Your task to perform on an android device: open app "Upside-Cash back on gas & food" (install if not already installed) and go to login screen Image 0: 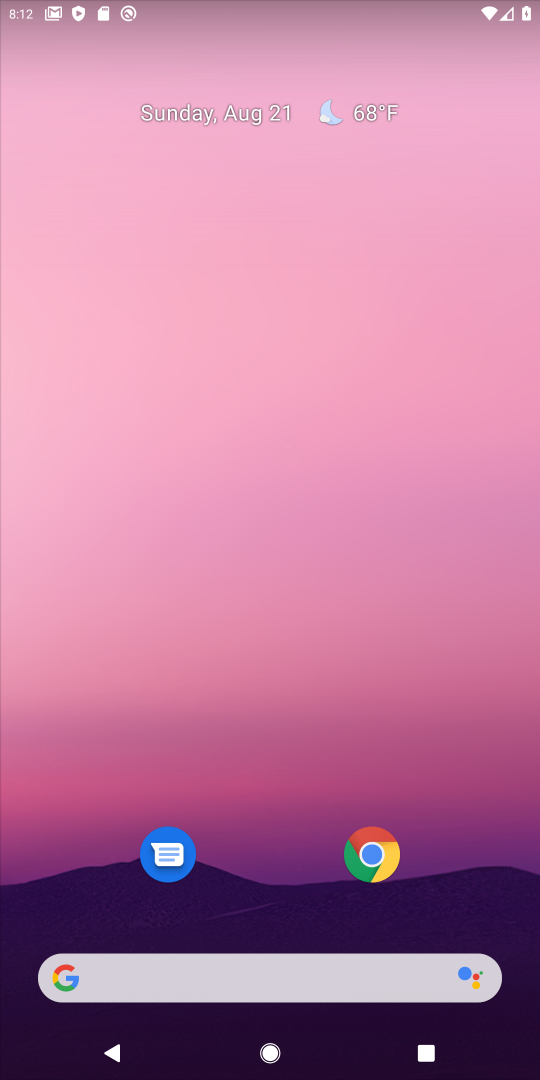
Step 0: drag from (277, 917) to (298, 216)
Your task to perform on an android device: open app "Upside-Cash back on gas & food" (install if not already installed) and go to login screen Image 1: 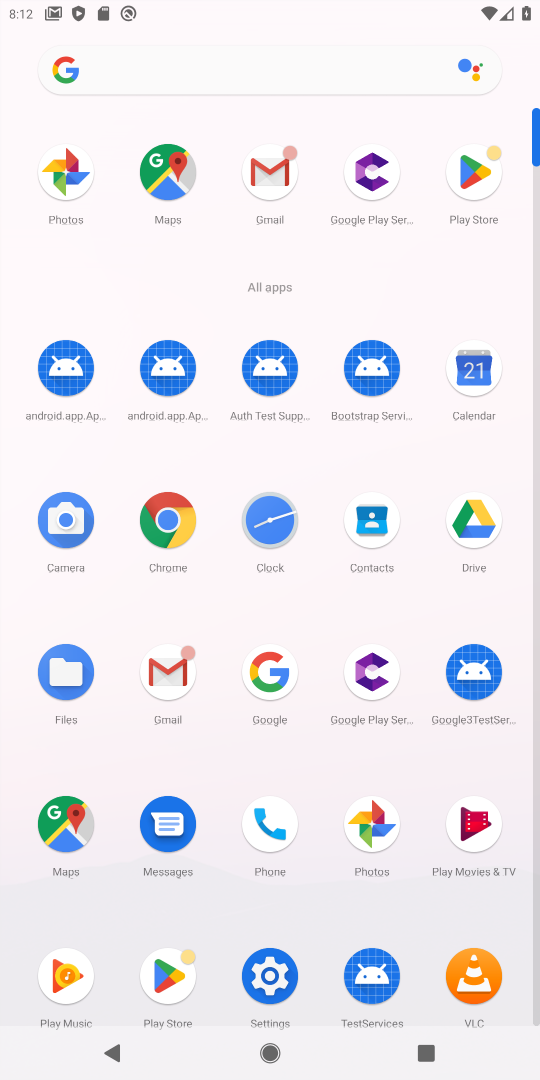
Step 1: click (492, 180)
Your task to perform on an android device: open app "Upside-Cash back on gas & food" (install if not already installed) and go to login screen Image 2: 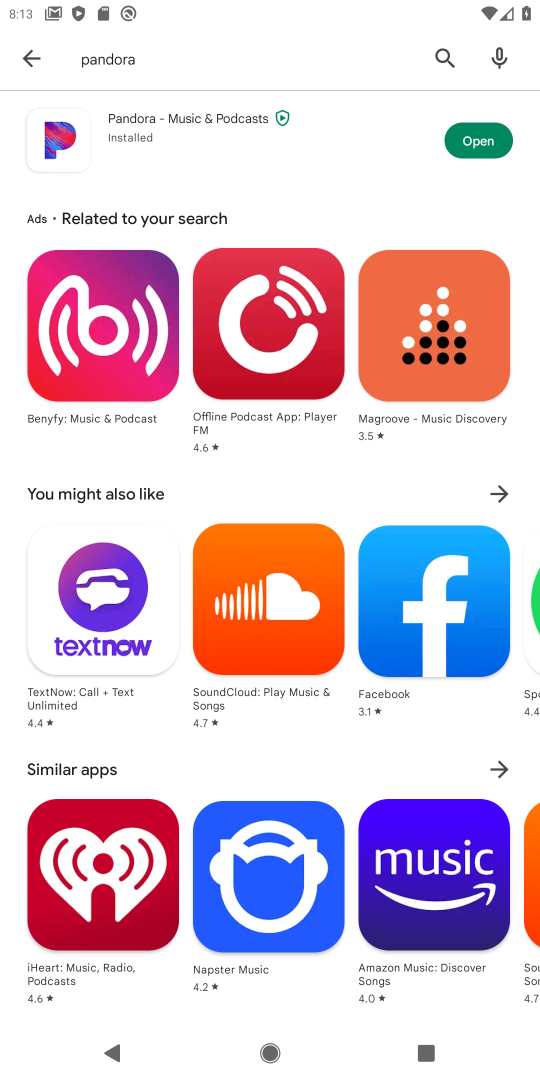
Step 2: click (460, 54)
Your task to perform on an android device: open app "Upside-Cash back on gas & food" (install if not already installed) and go to login screen Image 3: 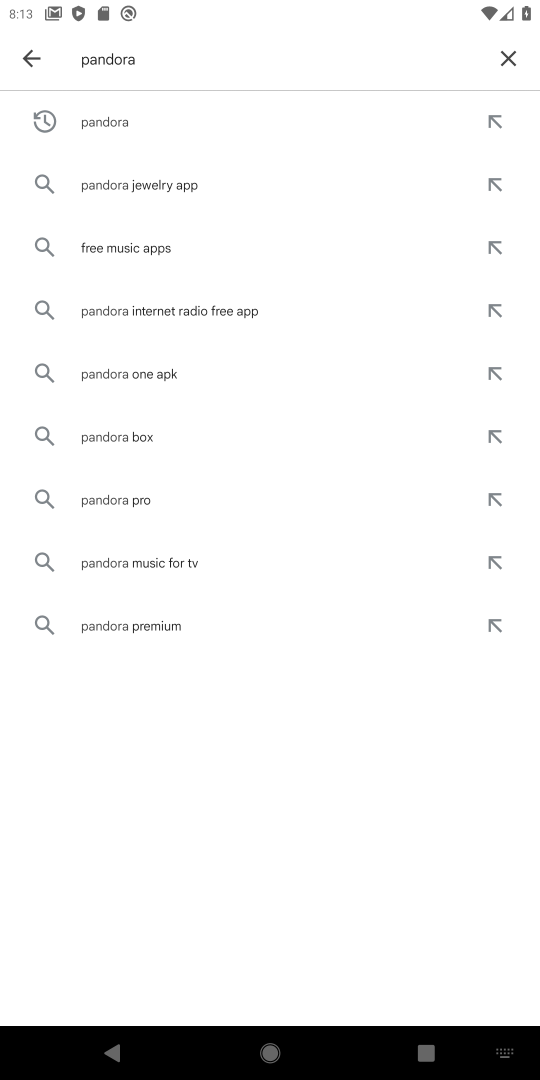
Step 3: click (517, 67)
Your task to perform on an android device: open app "Upside-Cash back on gas & food" (install if not already installed) and go to login screen Image 4: 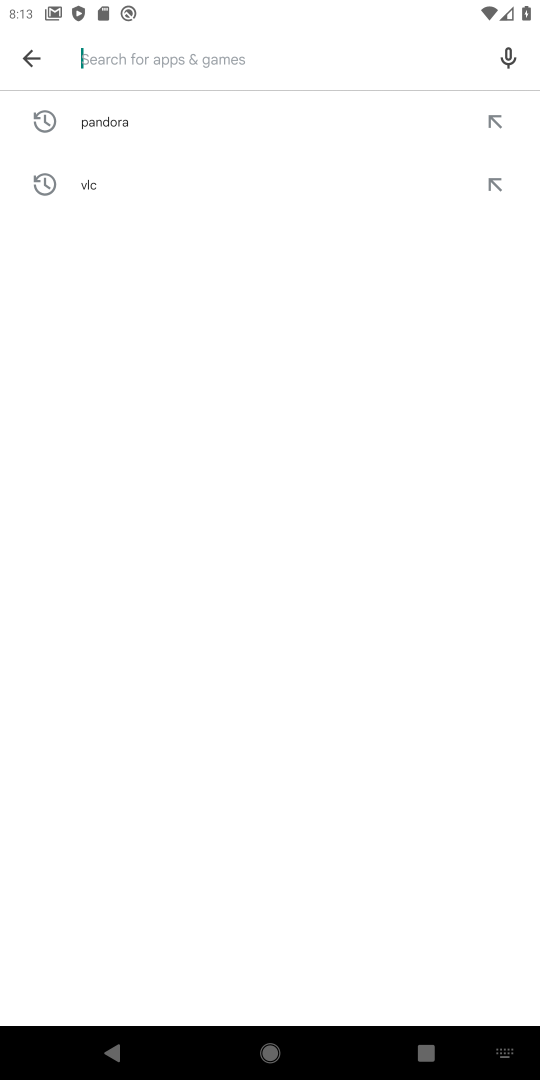
Step 4: type "upside"
Your task to perform on an android device: open app "Upside-Cash back on gas & food" (install if not already installed) and go to login screen Image 5: 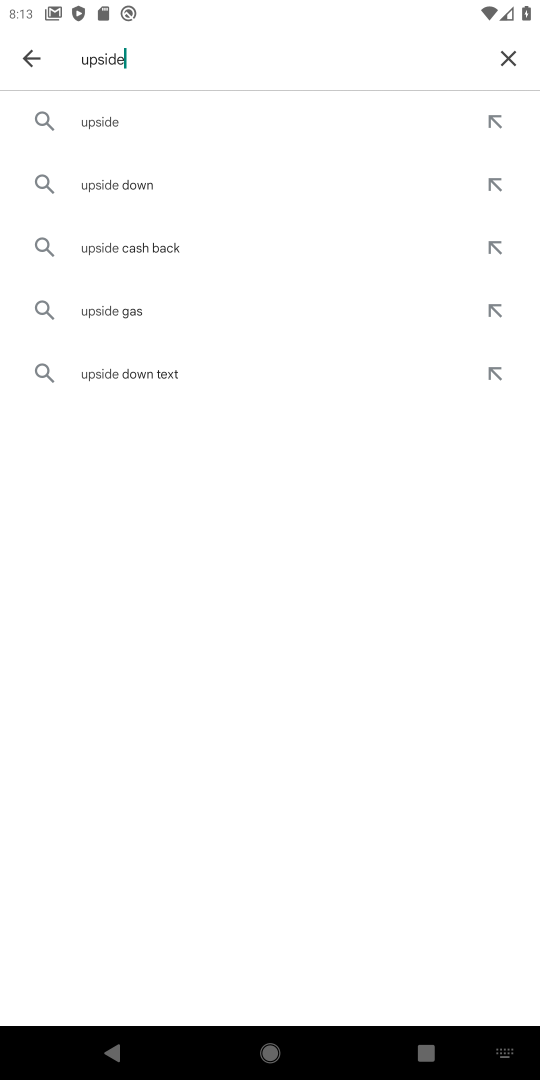
Step 5: click (87, 125)
Your task to perform on an android device: open app "Upside-Cash back on gas & food" (install if not already installed) and go to login screen Image 6: 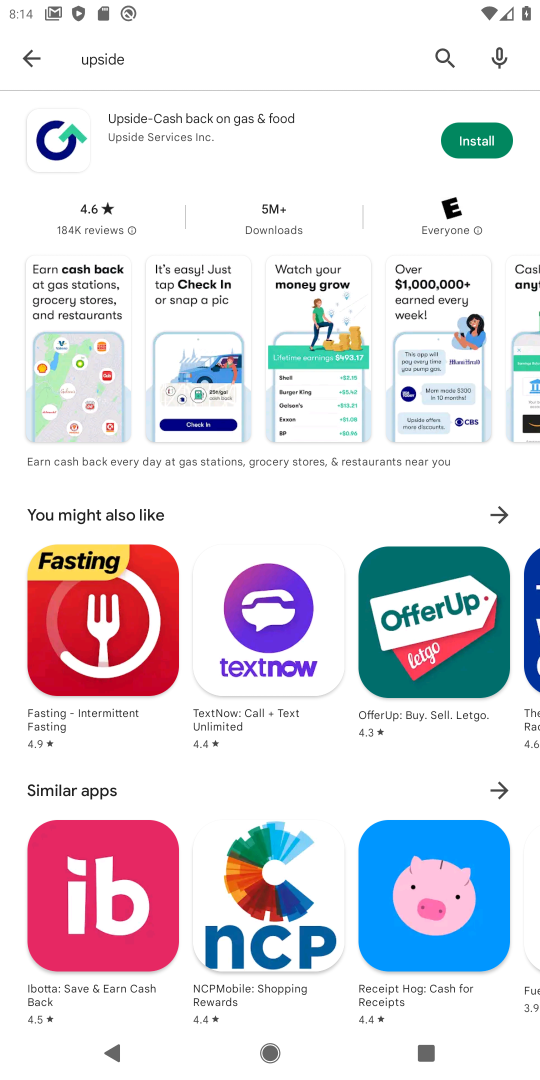
Step 6: click (494, 130)
Your task to perform on an android device: open app "Upside-Cash back on gas & food" (install if not already installed) and go to login screen Image 7: 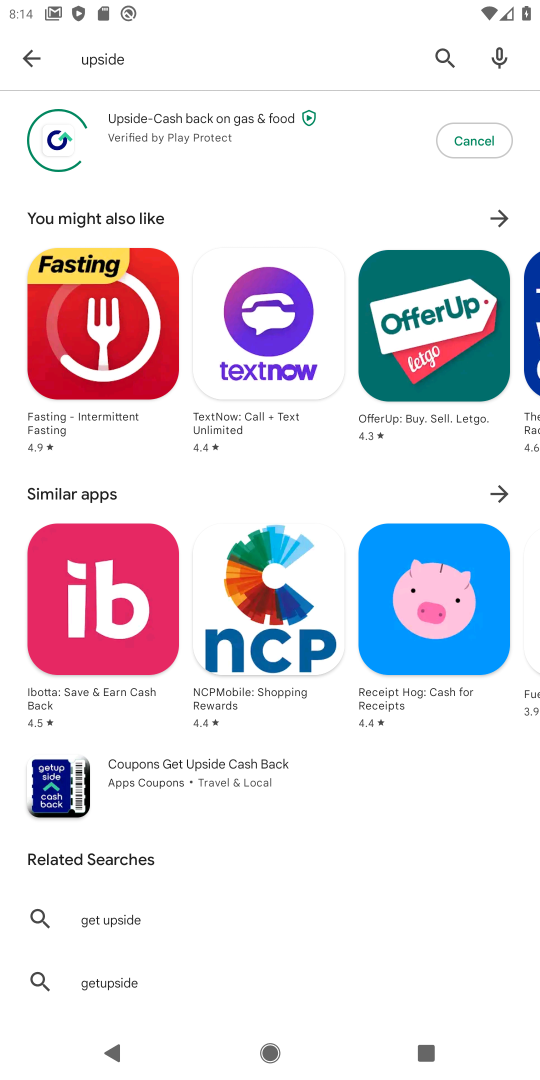
Step 7: task complete